Your task to perform on an android device: Do I have any events tomorrow? Image 0: 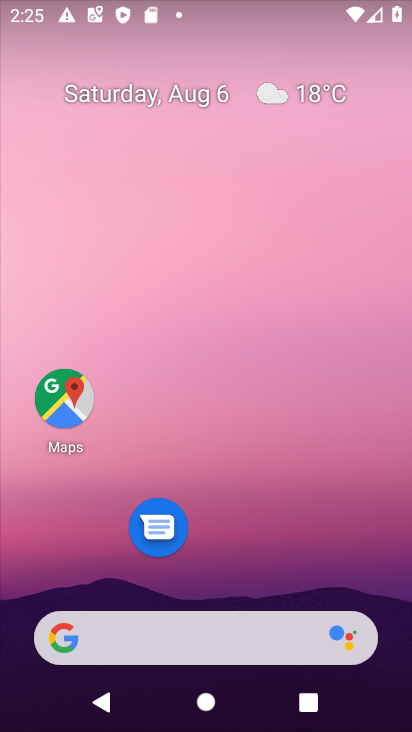
Step 0: drag from (263, 514) to (253, 104)
Your task to perform on an android device: Do I have any events tomorrow? Image 1: 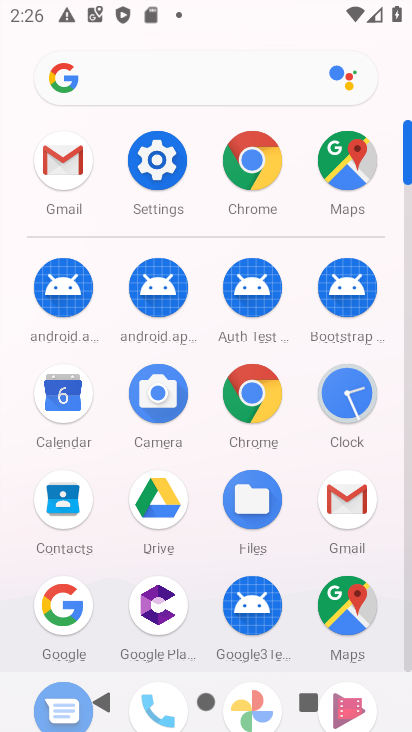
Step 1: drag from (287, 252) to (287, 70)
Your task to perform on an android device: Do I have any events tomorrow? Image 2: 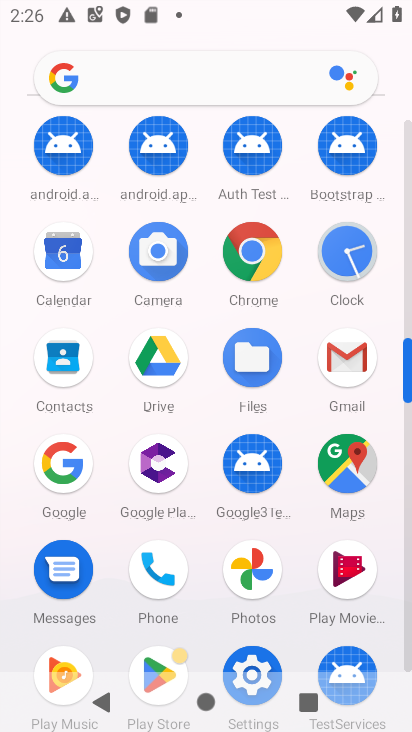
Step 2: drag from (292, 172) to (308, 283)
Your task to perform on an android device: Do I have any events tomorrow? Image 3: 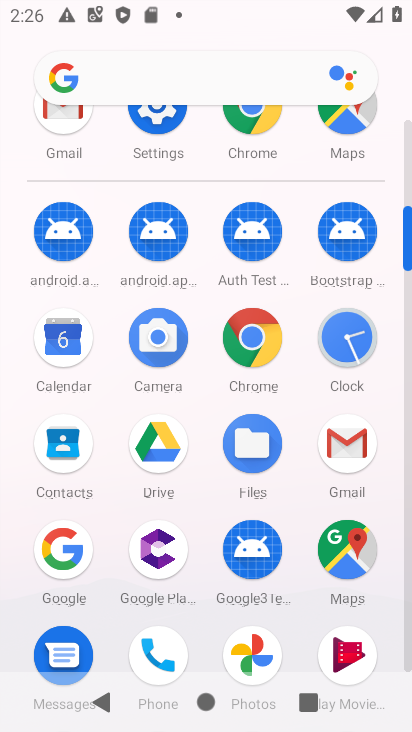
Step 3: drag from (293, 191) to (306, 314)
Your task to perform on an android device: Do I have any events tomorrow? Image 4: 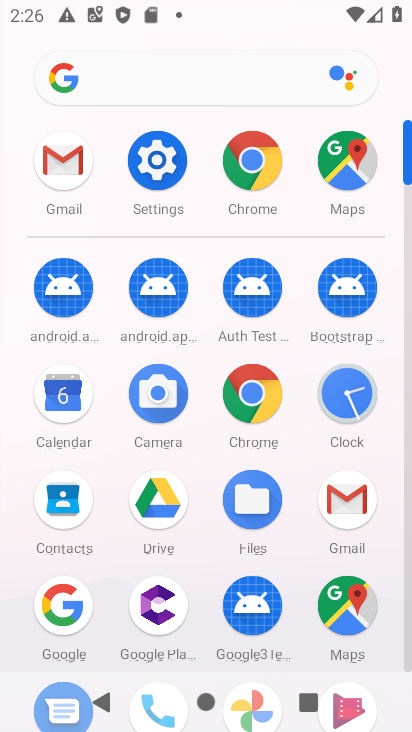
Step 4: click (73, 404)
Your task to perform on an android device: Do I have any events tomorrow? Image 5: 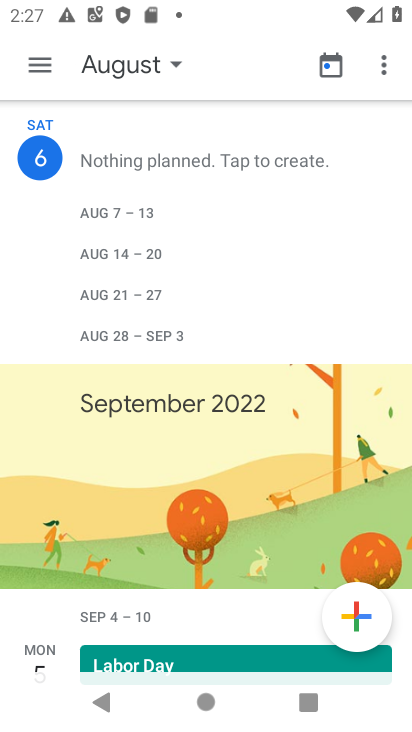
Step 5: click (132, 72)
Your task to perform on an android device: Do I have any events tomorrow? Image 6: 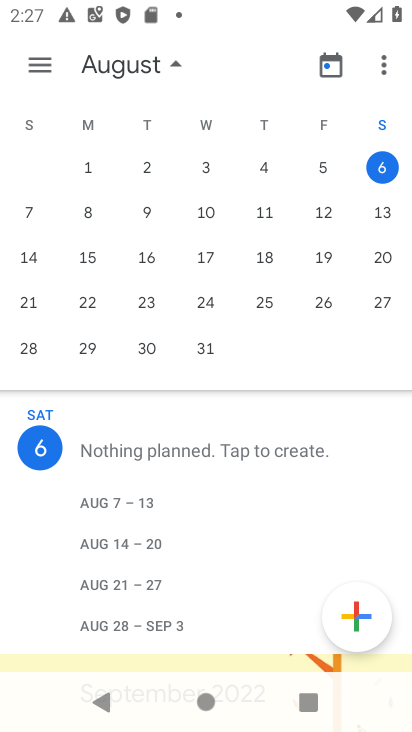
Step 6: click (32, 212)
Your task to perform on an android device: Do I have any events tomorrow? Image 7: 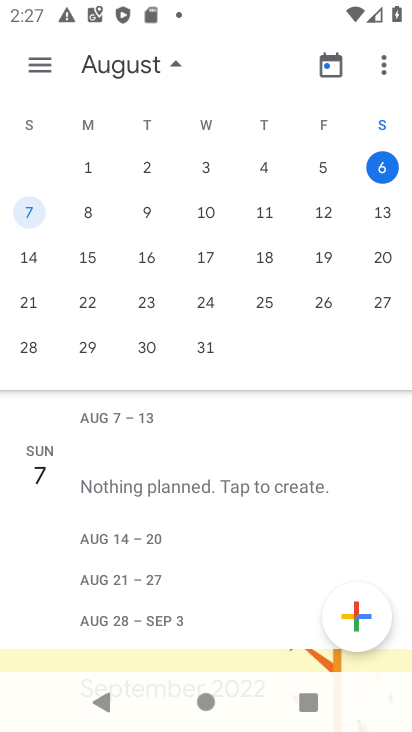
Step 7: click (154, 64)
Your task to perform on an android device: Do I have any events tomorrow? Image 8: 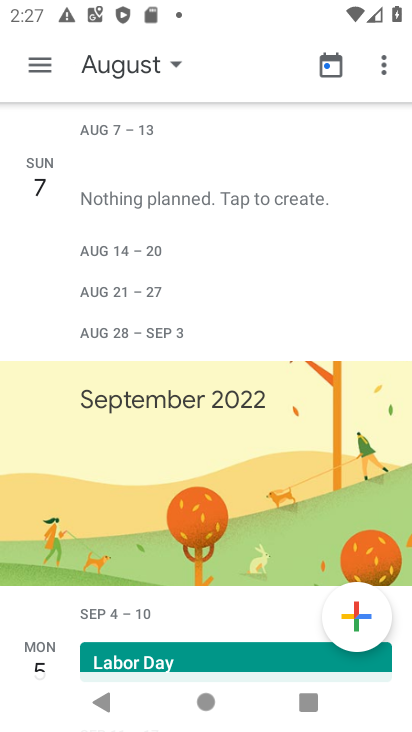
Step 8: click (51, 64)
Your task to perform on an android device: Do I have any events tomorrow? Image 9: 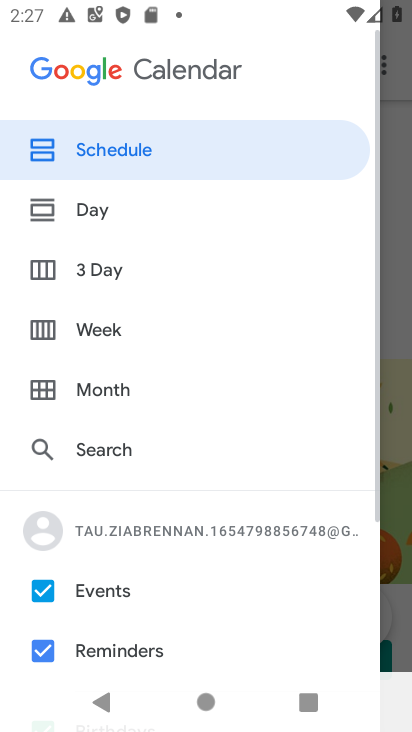
Step 9: click (98, 220)
Your task to perform on an android device: Do I have any events tomorrow? Image 10: 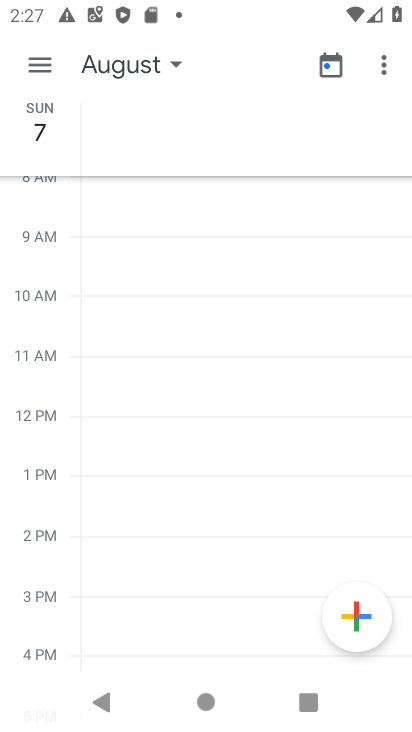
Step 10: task complete